Your task to perform on an android device: open app "Google Docs" Image 0: 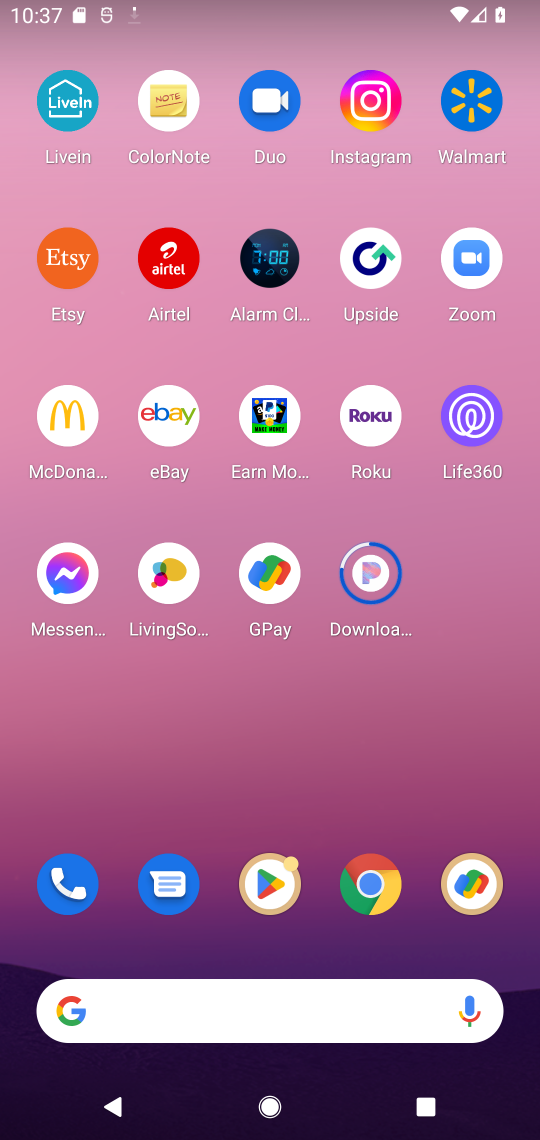
Step 0: click (270, 894)
Your task to perform on an android device: open app "Google Docs" Image 1: 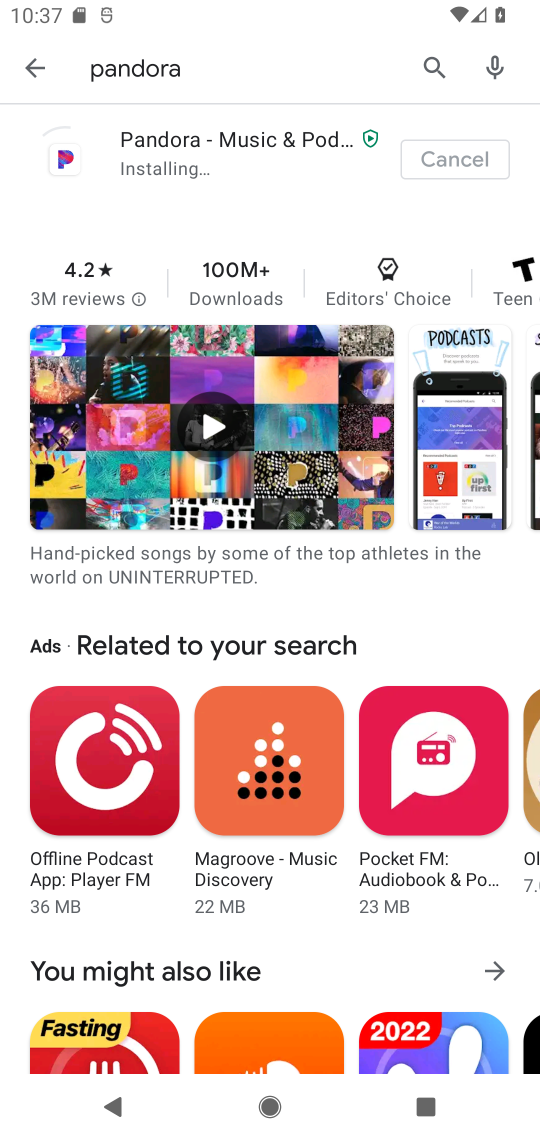
Step 1: click (423, 77)
Your task to perform on an android device: open app "Google Docs" Image 2: 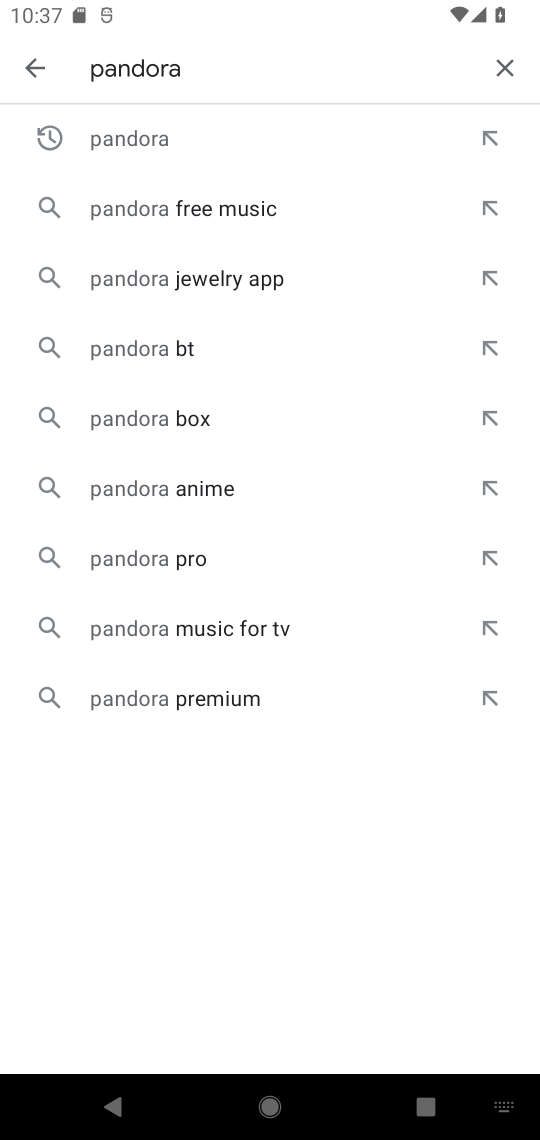
Step 2: click (517, 73)
Your task to perform on an android device: open app "Google Docs" Image 3: 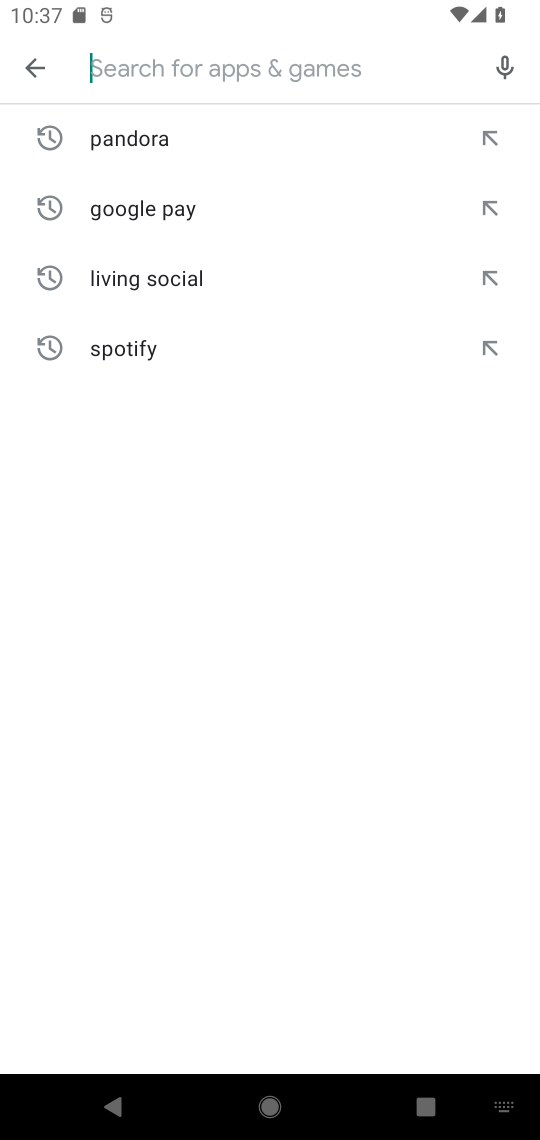
Step 3: type "googlew doc"
Your task to perform on an android device: open app "Google Docs" Image 4: 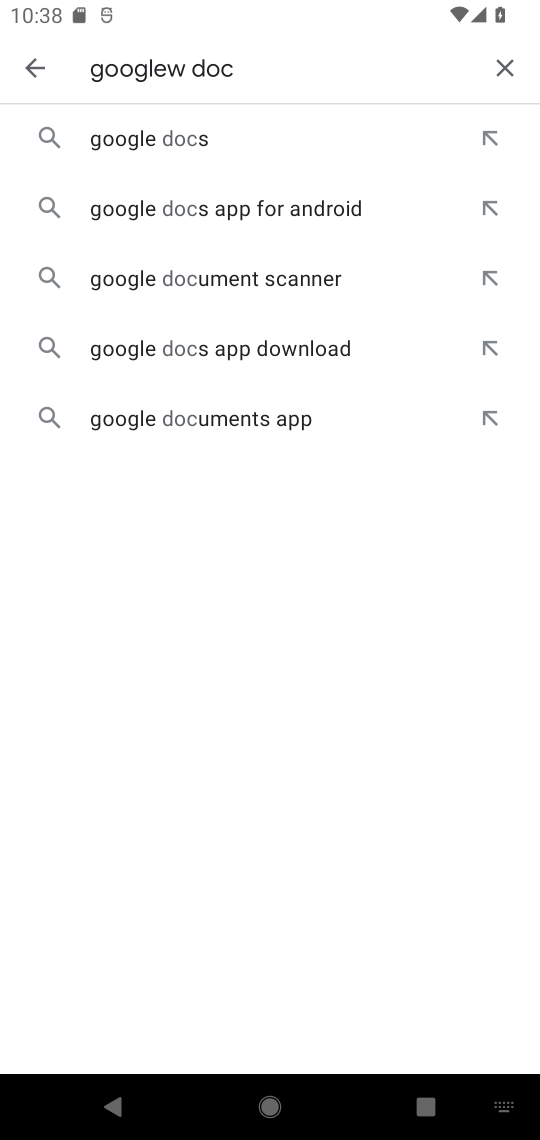
Step 4: click (188, 152)
Your task to perform on an android device: open app "Google Docs" Image 5: 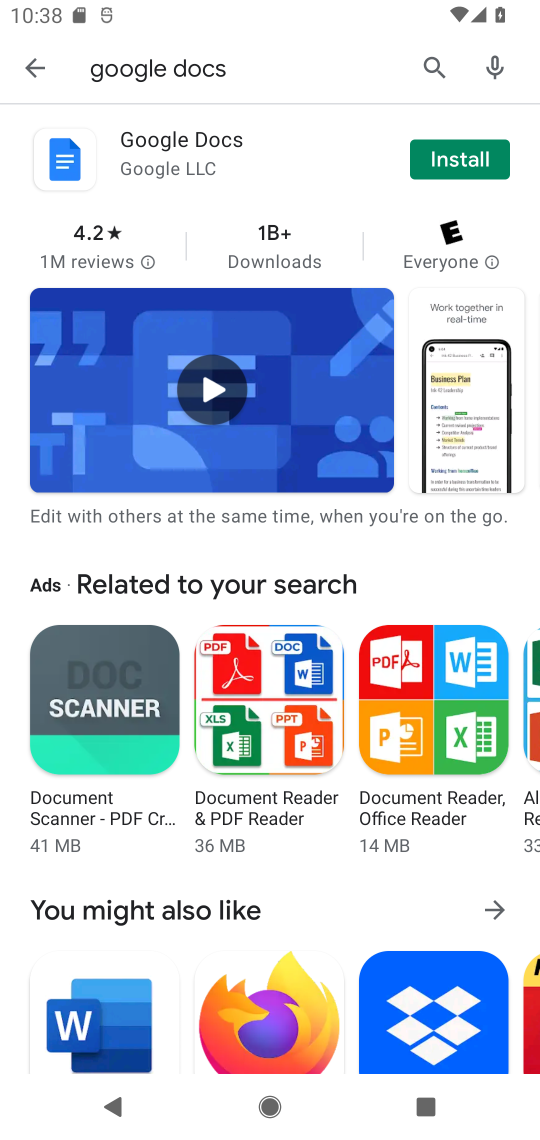
Step 5: click (470, 152)
Your task to perform on an android device: open app "Google Docs" Image 6: 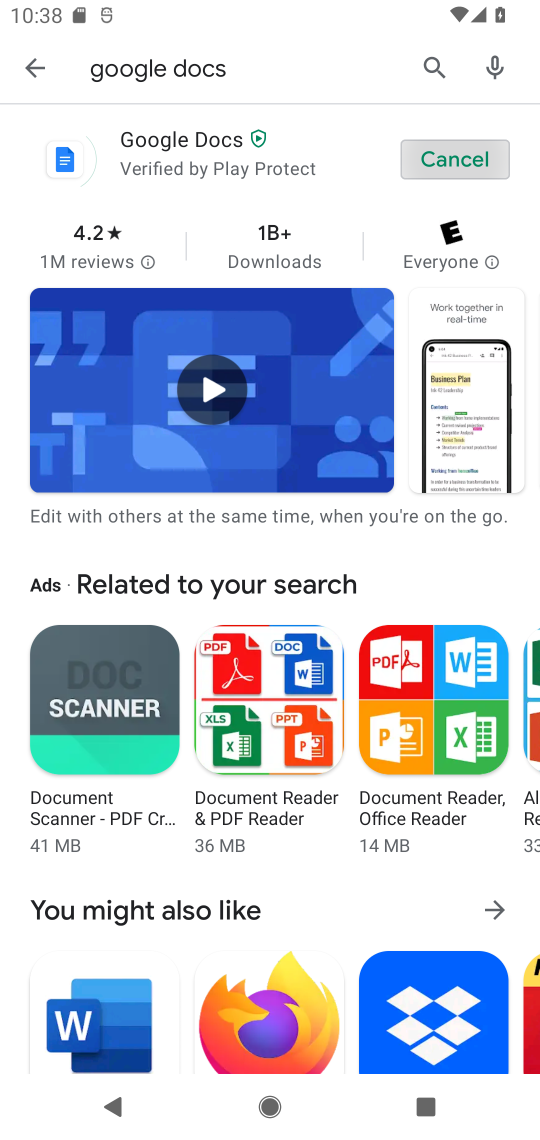
Step 6: task complete